Your task to perform on an android device: install app "Gmail" Image 0: 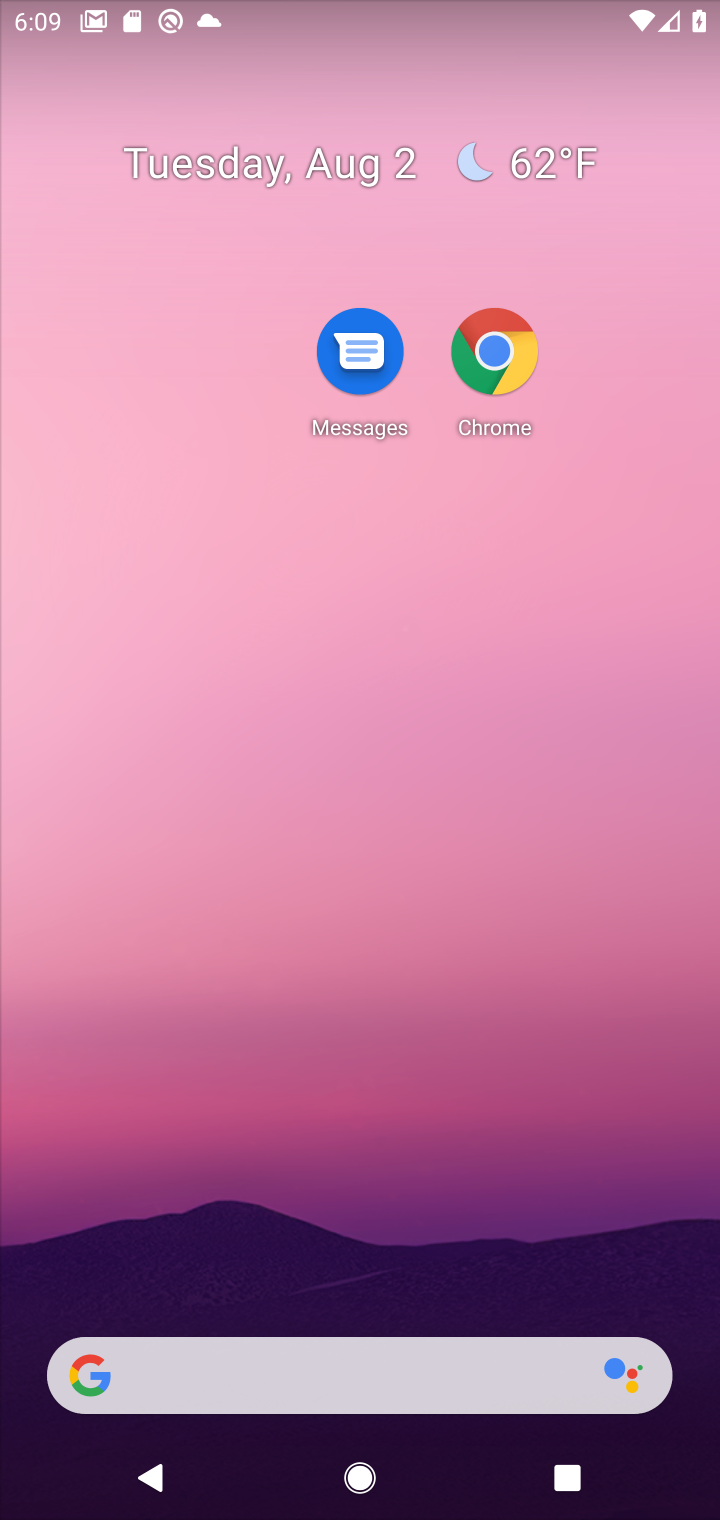
Step 0: drag from (380, 1072) to (391, 5)
Your task to perform on an android device: install app "Gmail" Image 1: 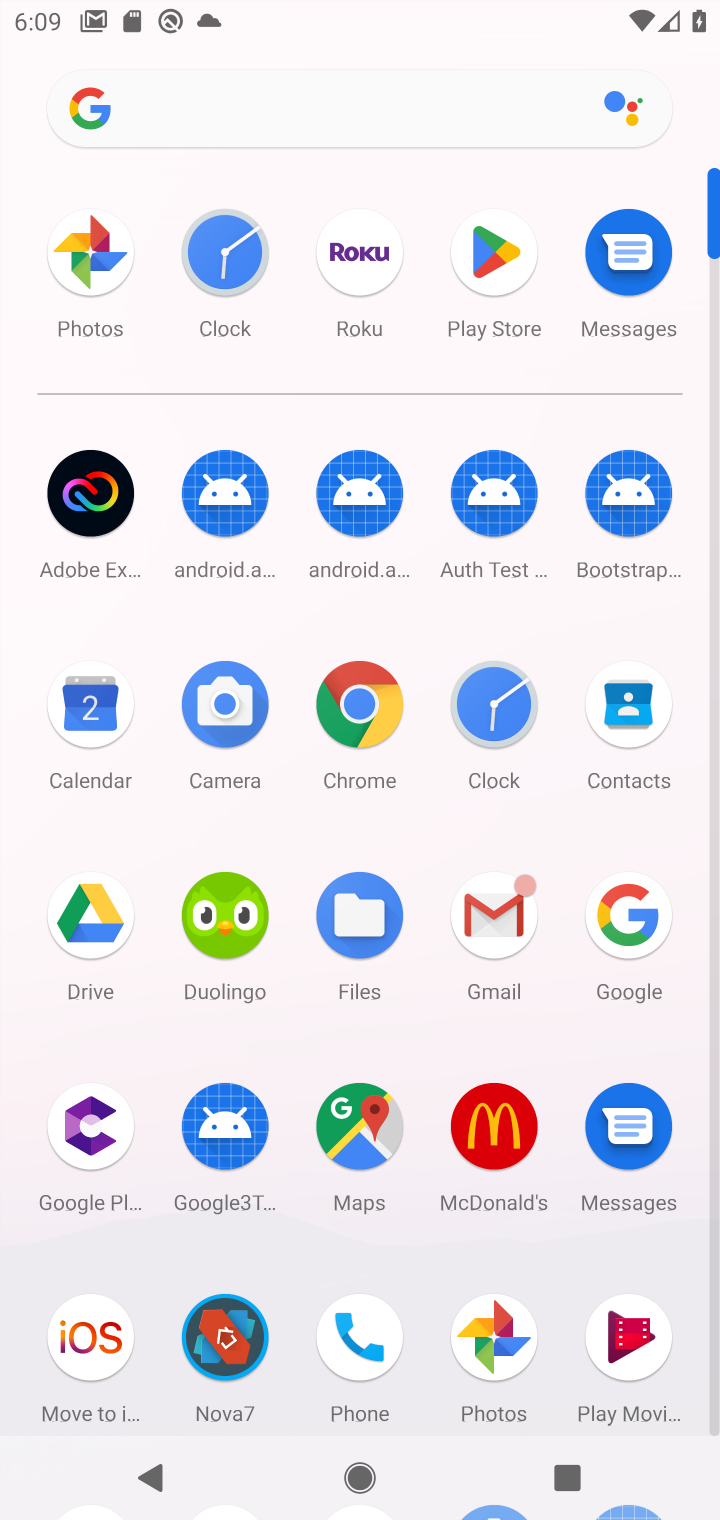
Step 1: click (495, 236)
Your task to perform on an android device: install app "Gmail" Image 2: 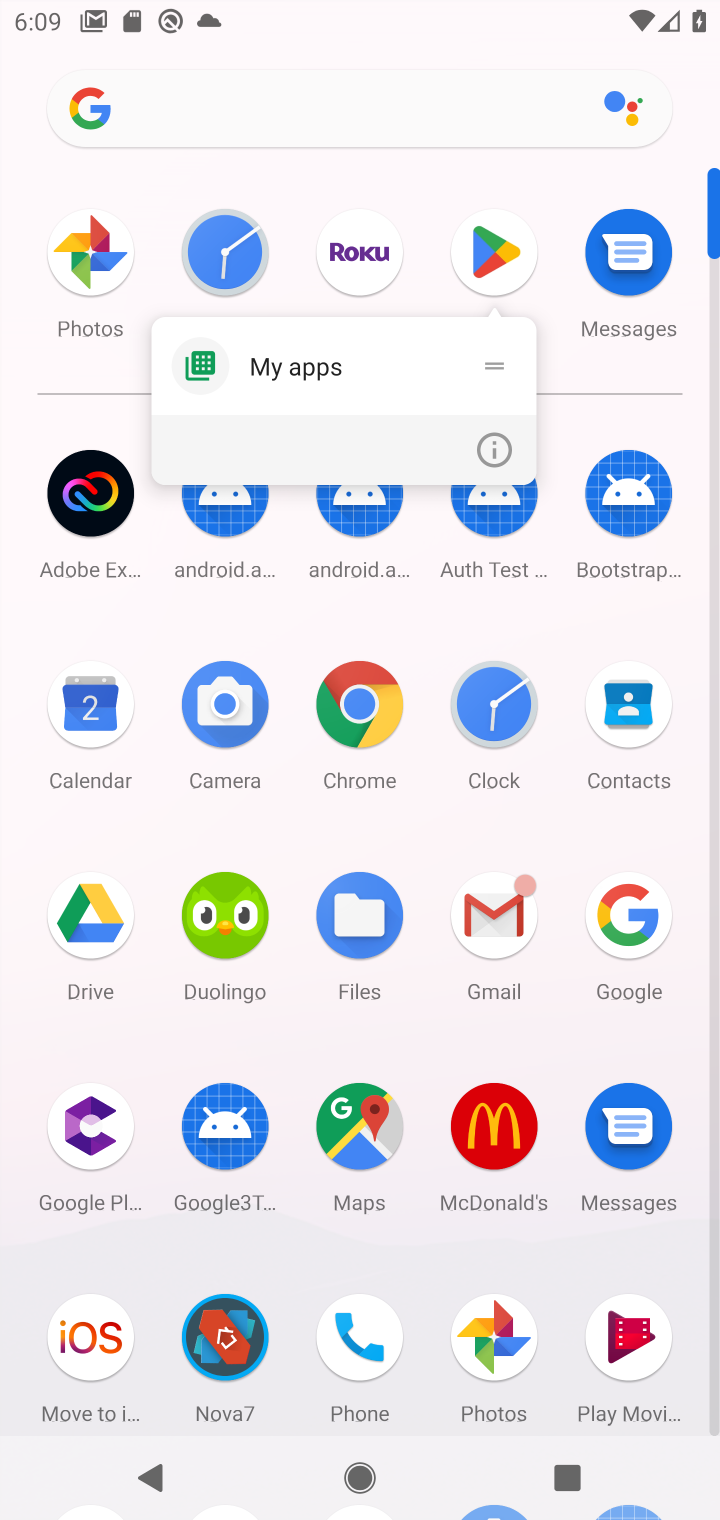
Step 2: click (480, 453)
Your task to perform on an android device: install app "Gmail" Image 3: 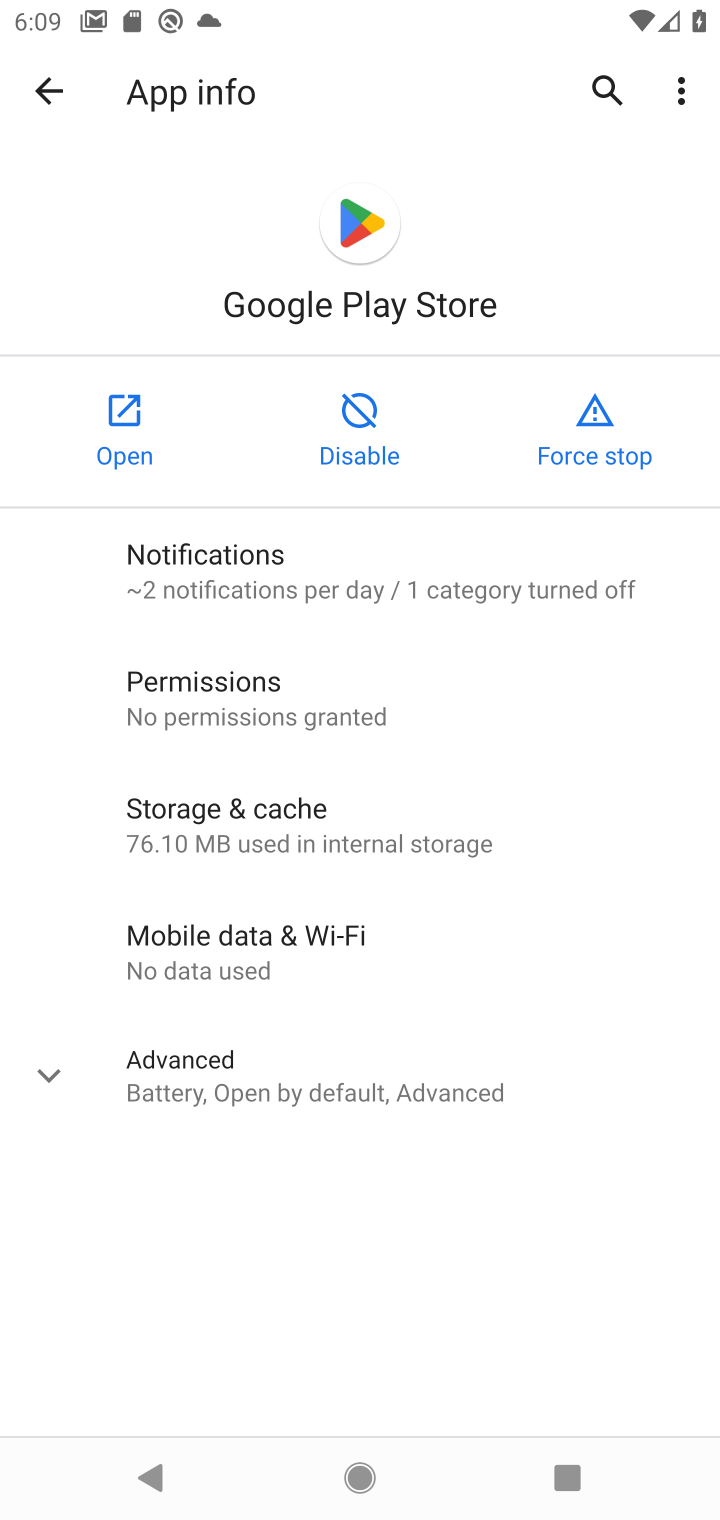
Step 3: click (130, 408)
Your task to perform on an android device: install app "Gmail" Image 4: 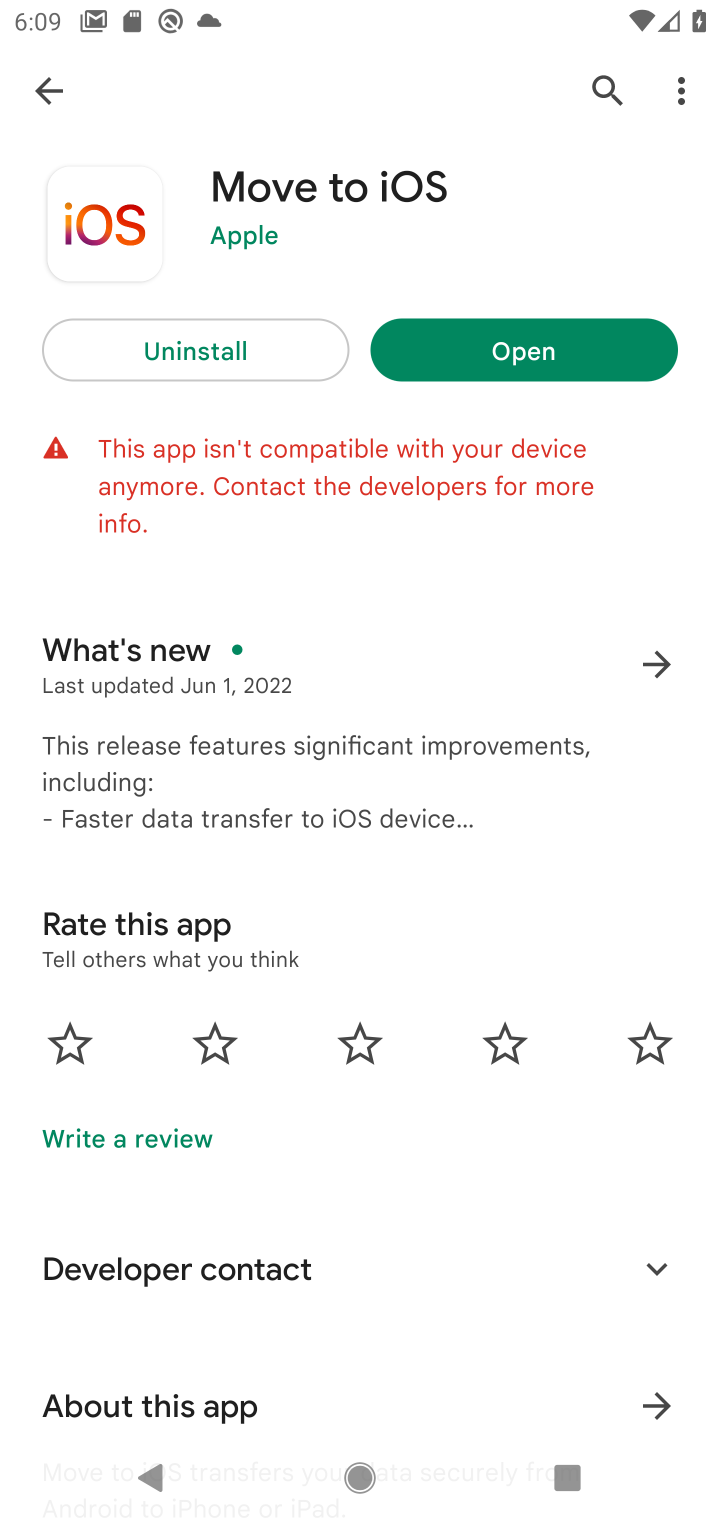
Step 4: click (602, 79)
Your task to perform on an android device: install app "Gmail" Image 5: 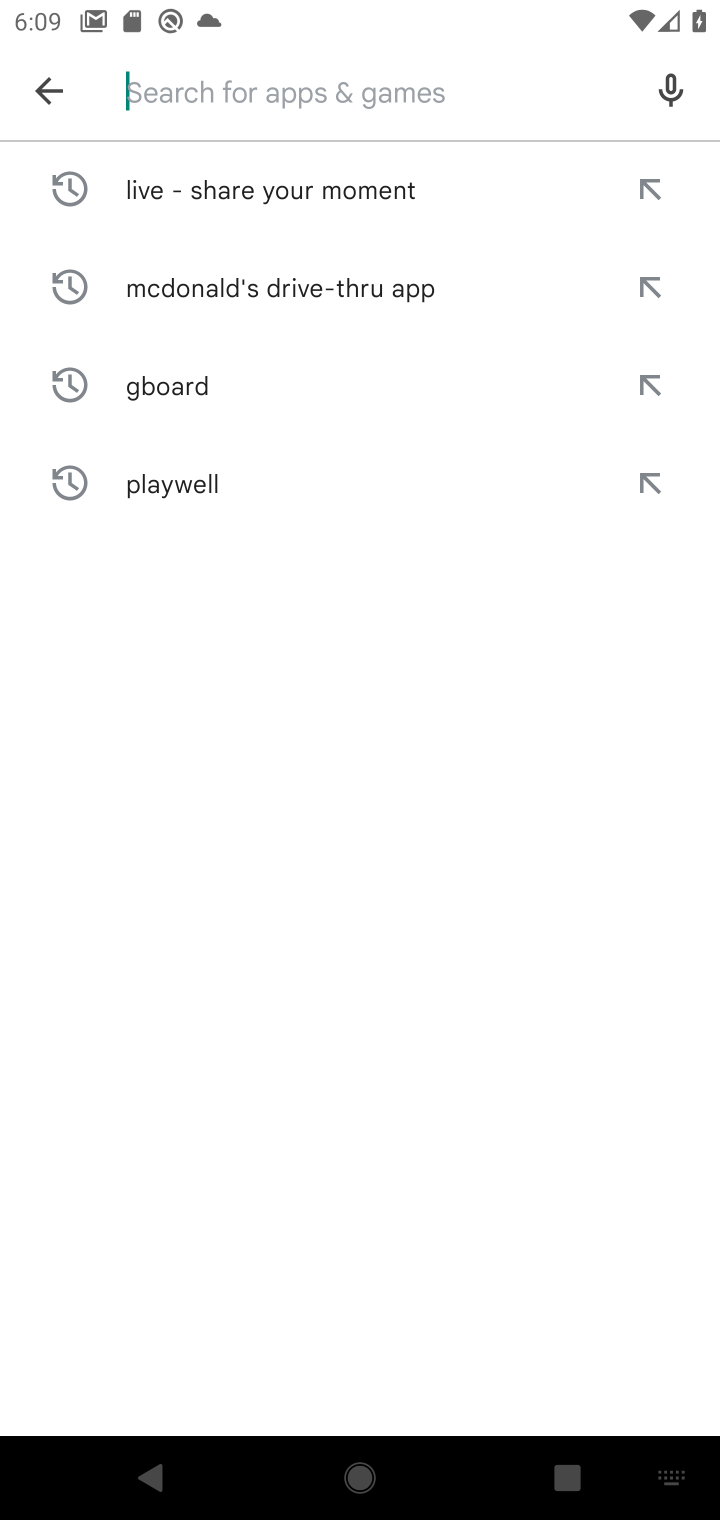
Step 5: type "Gmail"
Your task to perform on an android device: install app "Gmail" Image 6: 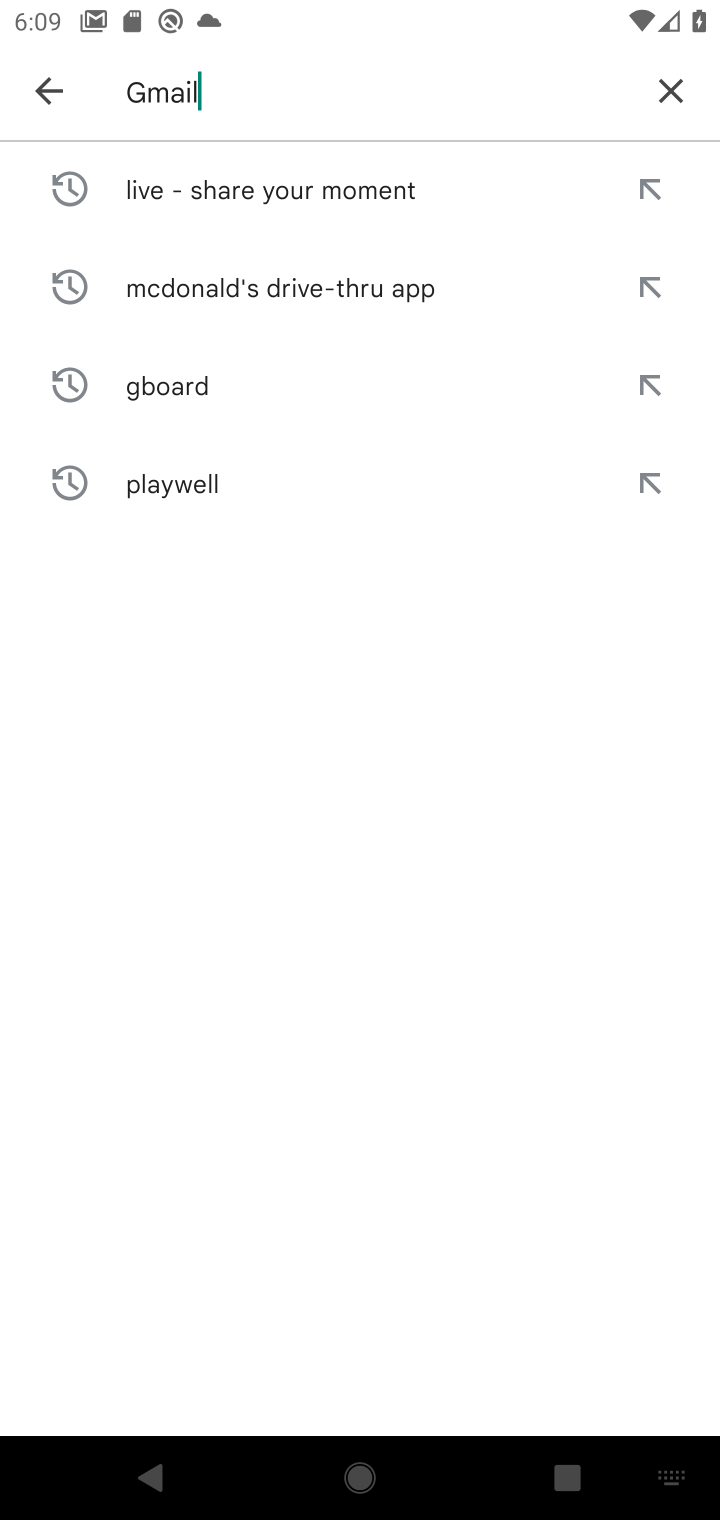
Step 6: type ""
Your task to perform on an android device: install app "Gmail" Image 7: 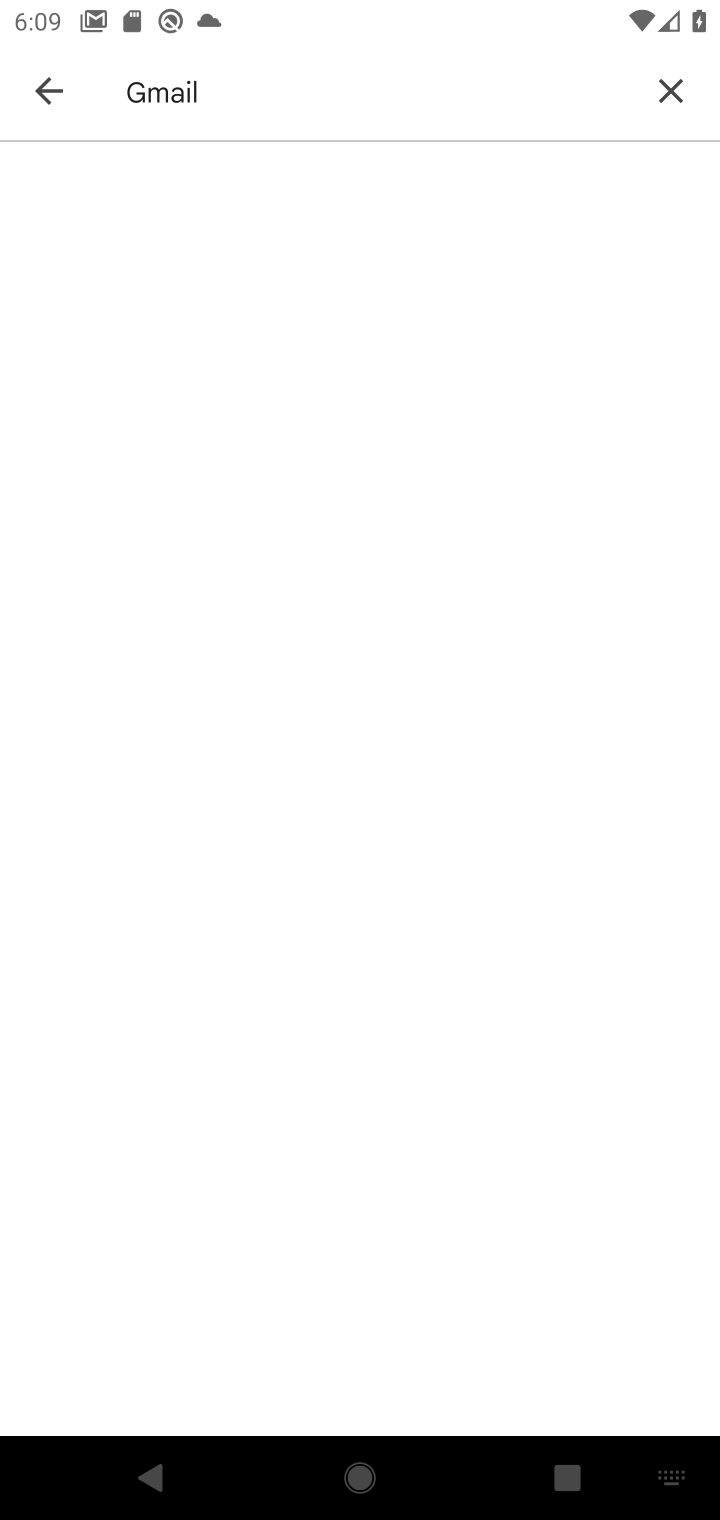
Step 7: click (226, 226)
Your task to perform on an android device: install app "Gmail" Image 8: 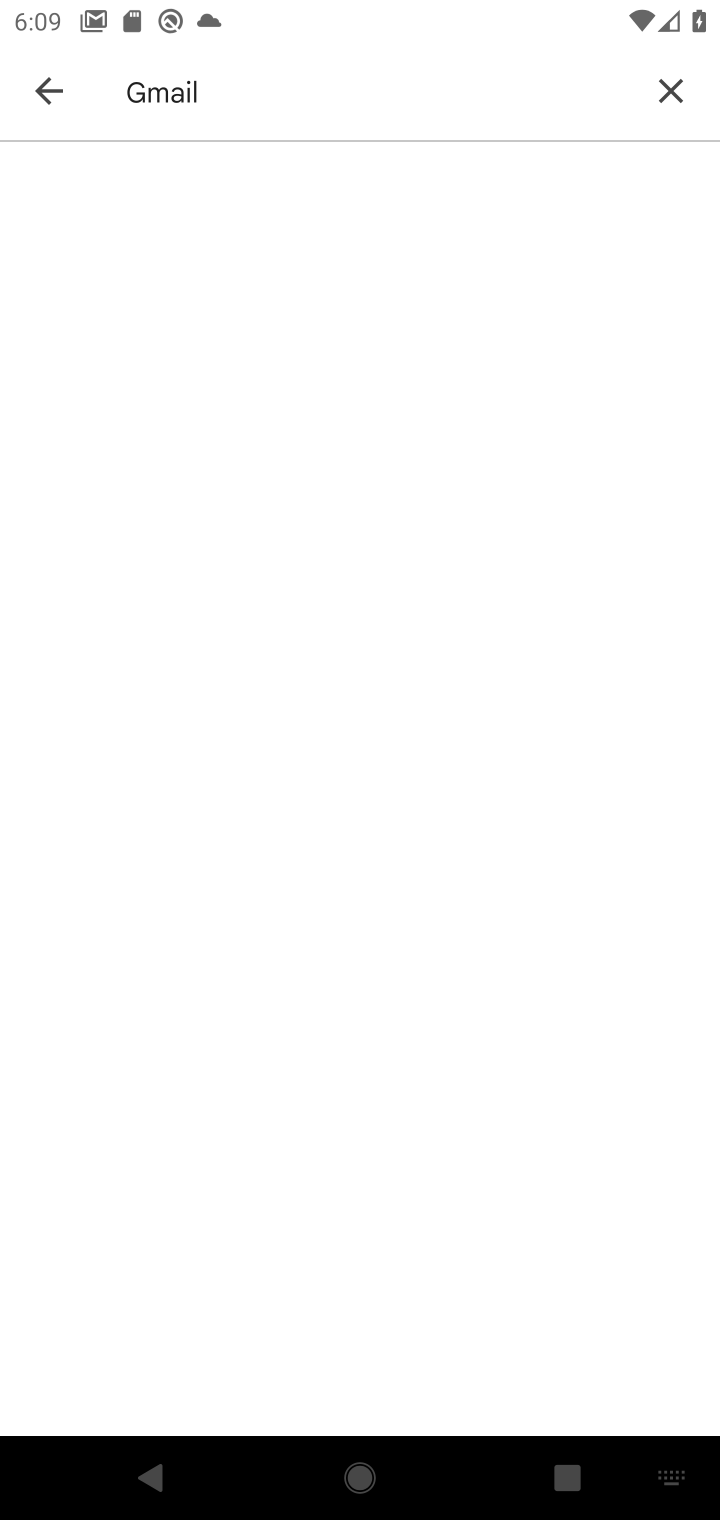
Step 8: press home button
Your task to perform on an android device: install app "Gmail" Image 9: 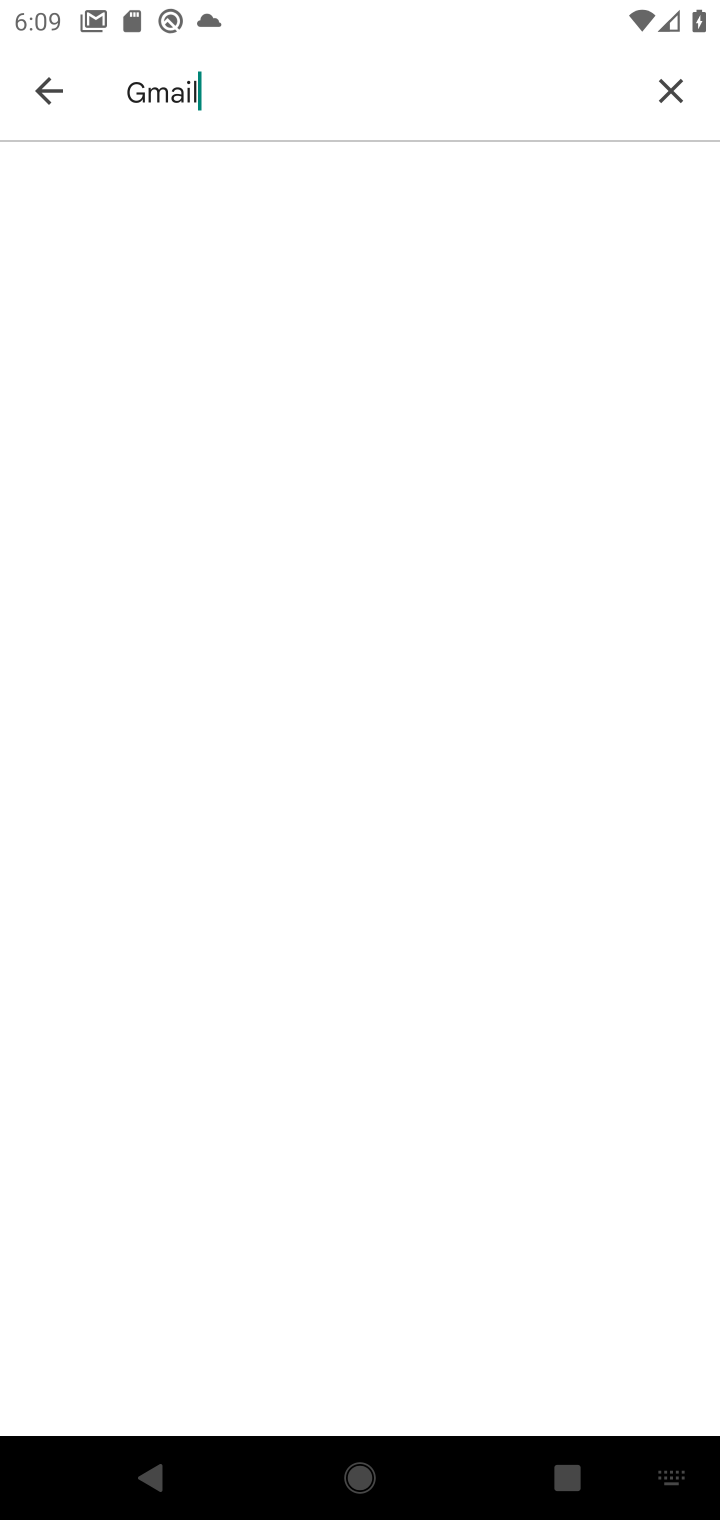
Step 9: click (421, 247)
Your task to perform on an android device: install app "Gmail" Image 10: 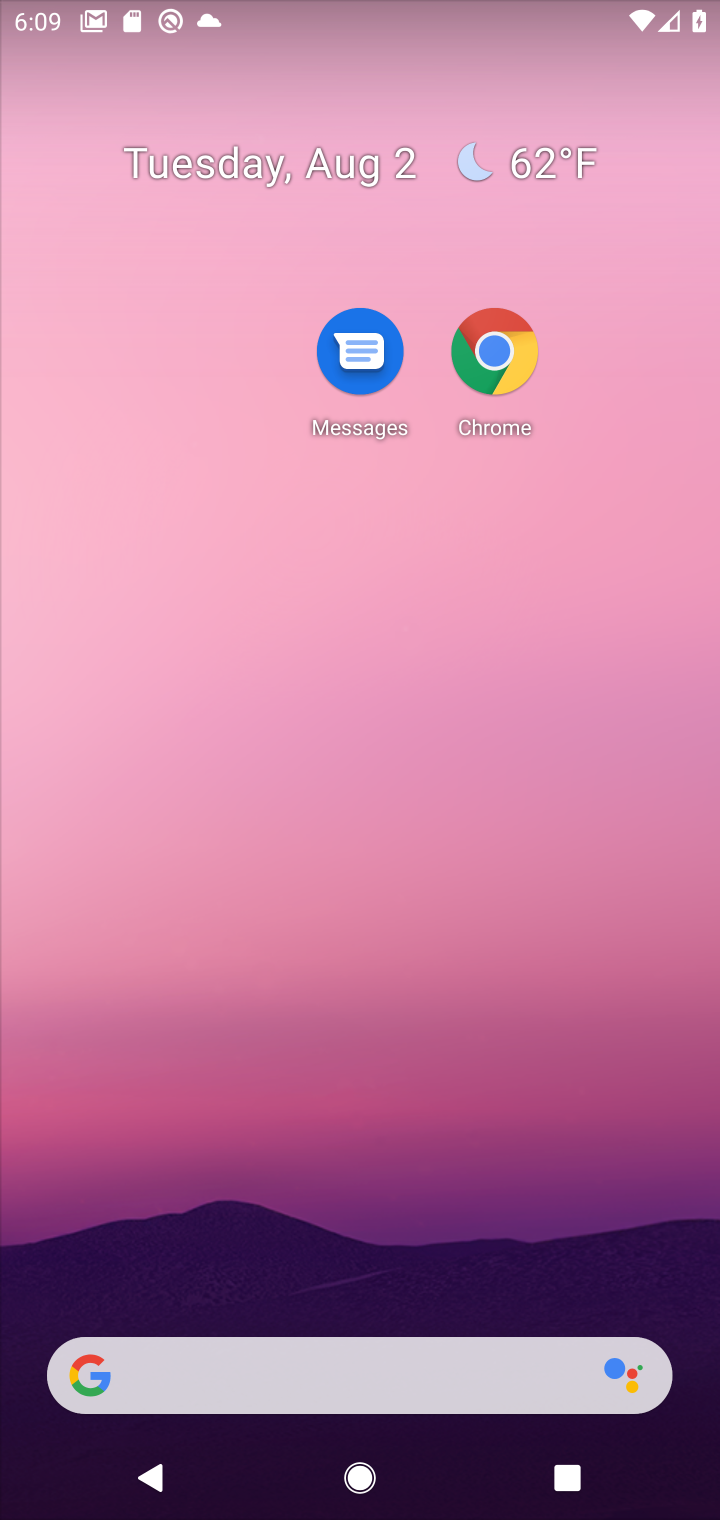
Step 10: task complete